Your task to perform on an android device: turn off wifi Image 0: 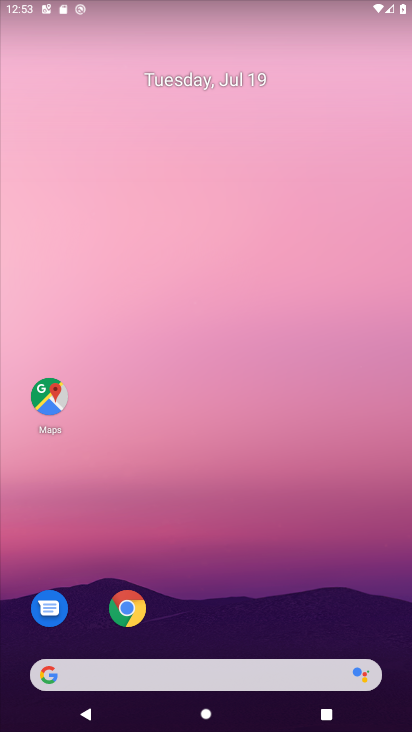
Step 0: drag from (237, 589) to (289, 219)
Your task to perform on an android device: turn off wifi Image 1: 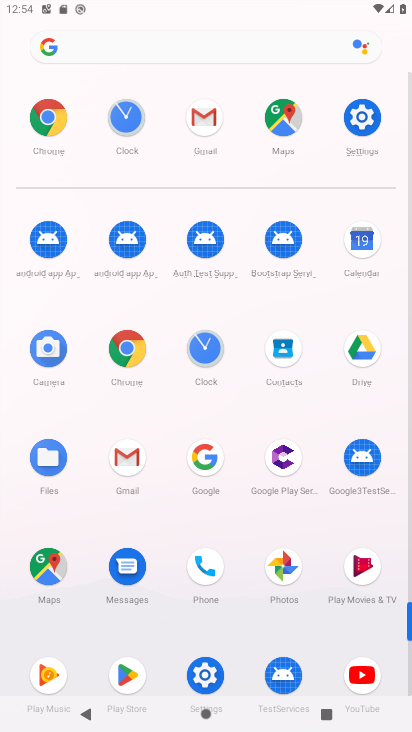
Step 1: click (211, 680)
Your task to perform on an android device: turn off wifi Image 2: 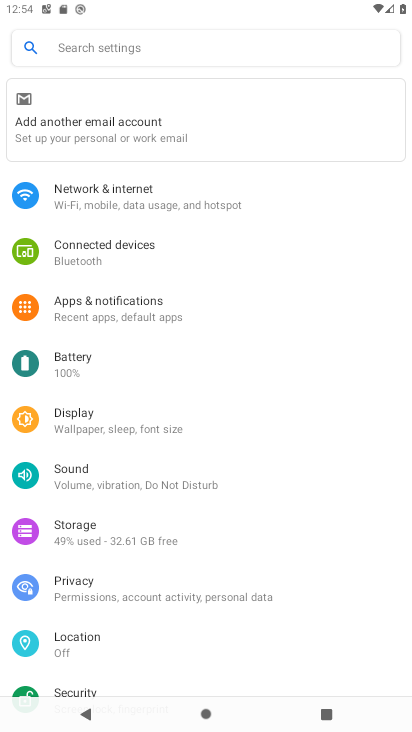
Step 2: click (168, 202)
Your task to perform on an android device: turn off wifi Image 3: 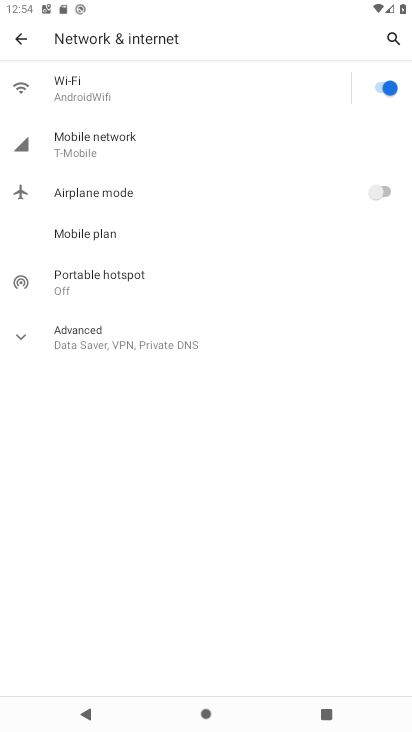
Step 3: click (385, 95)
Your task to perform on an android device: turn off wifi Image 4: 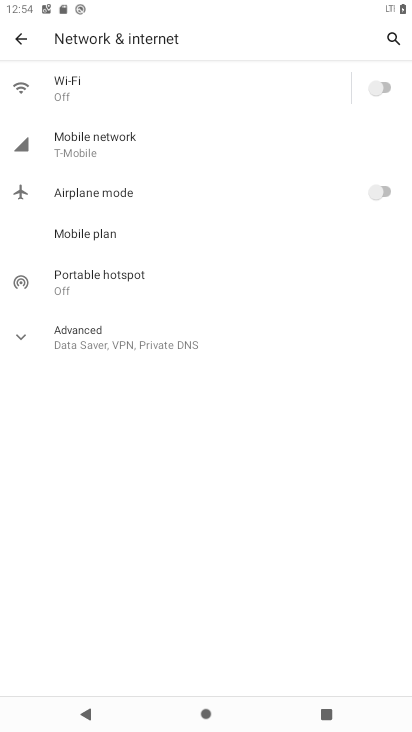
Step 4: task complete